Your task to perform on an android device: open sync settings in chrome Image 0: 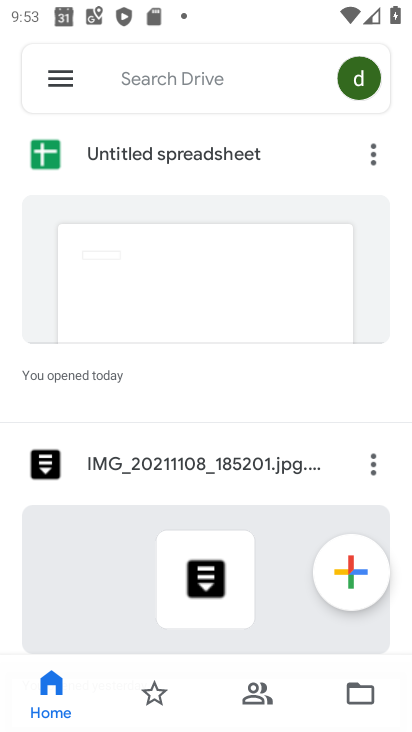
Step 0: press home button
Your task to perform on an android device: open sync settings in chrome Image 1: 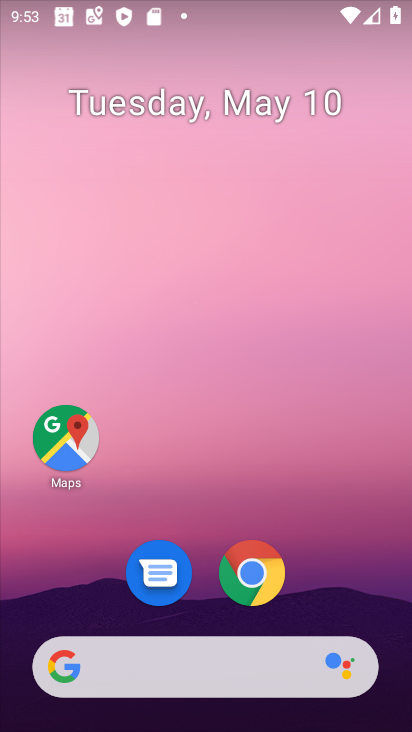
Step 1: click (259, 574)
Your task to perform on an android device: open sync settings in chrome Image 2: 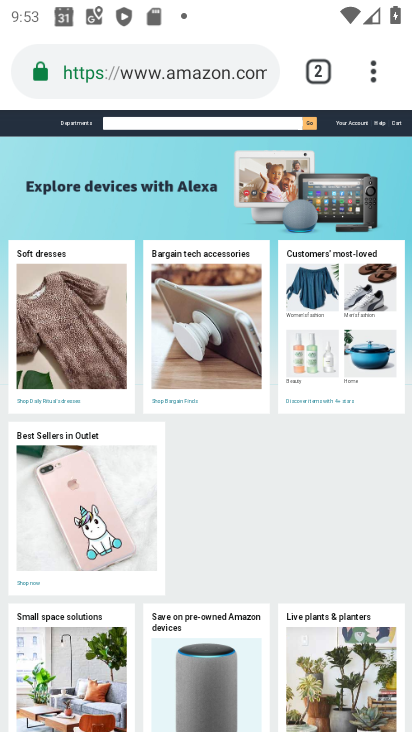
Step 2: click (371, 64)
Your task to perform on an android device: open sync settings in chrome Image 3: 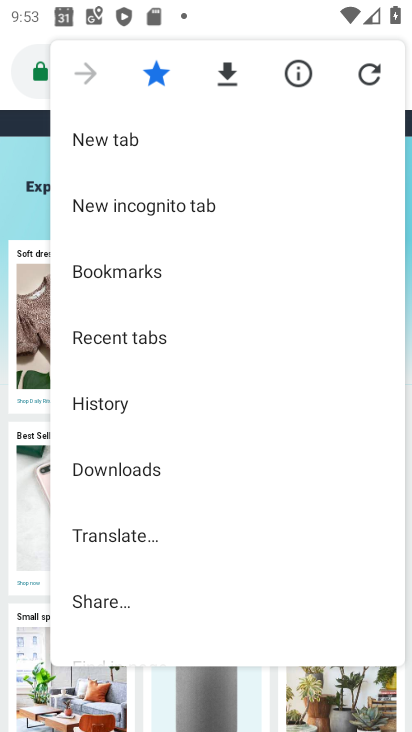
Step 3: drag from (265, 510) to (193, 213)
Your task to perform on an android device: open sync settings in chrome Image 4: 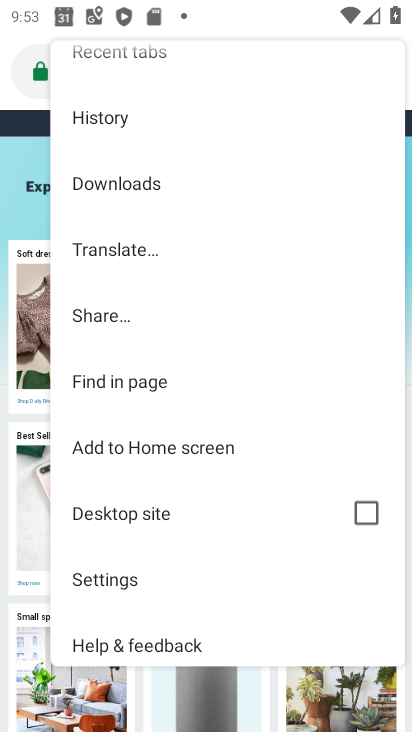
Step 4: click (109, 579)
Your task to perform on an android device: open sync settings in chrome Image 5: 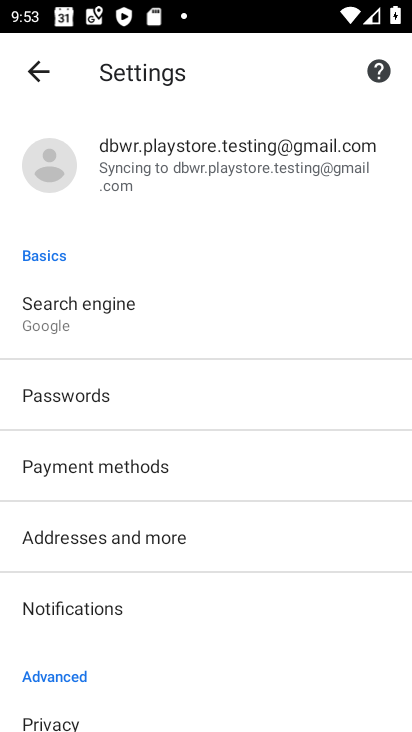
Step 5: click (143, 154)
Your task to perform on an android device: open sync settings in chrome Image 6: 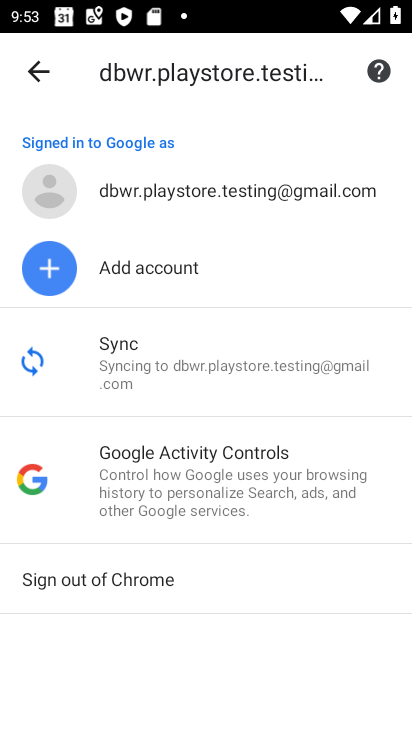
Step 6: click (127, 354)
Your task to perform on an android device: open sync settings in chrome Image 7: 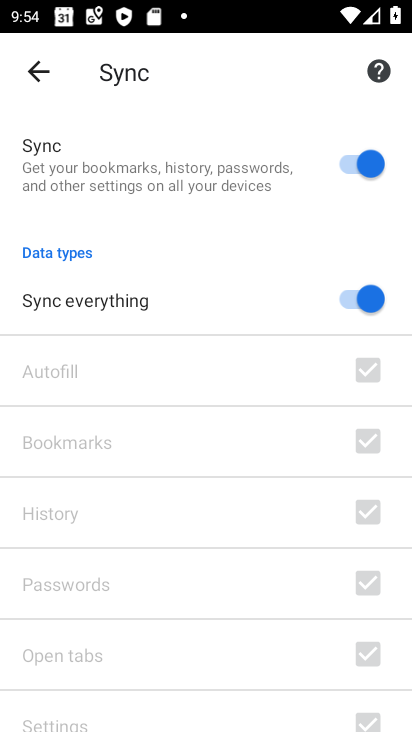
Step 7: task complete